Your task to perform on an android device: change the clock style Image 0: 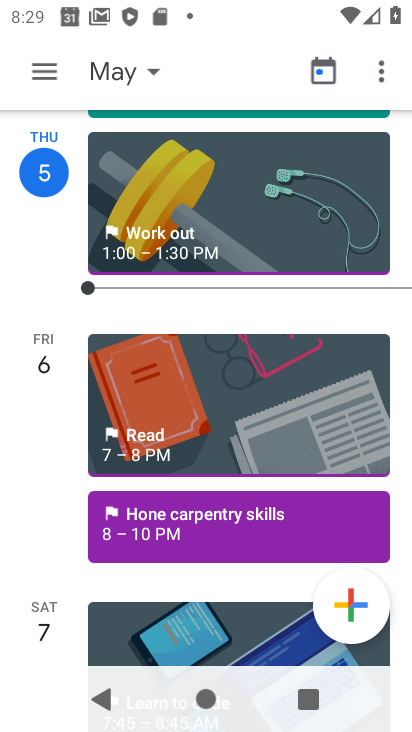
Step 0: press home button
Your task to perform on an android device: change the clock style Image 1: 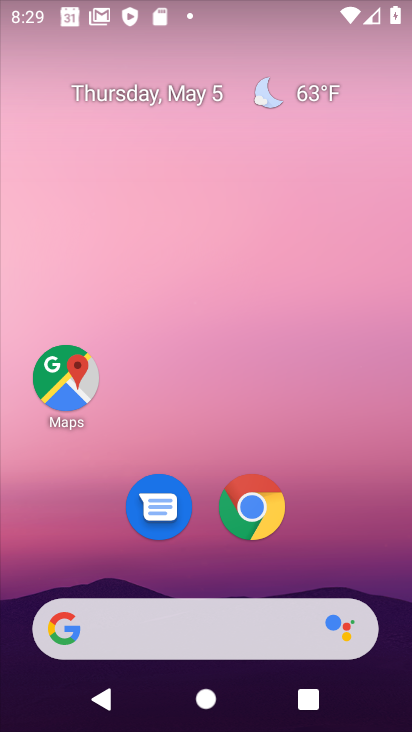
Step 1: drag from (261, 448) to (269, 21)
Your task to perform on an android device: change the clock style Image 2: 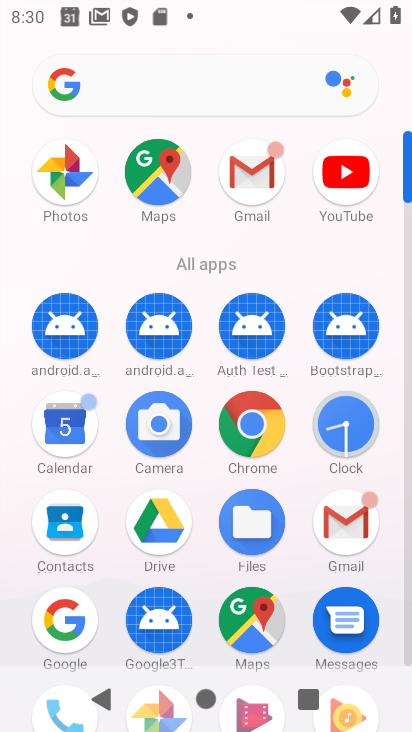
Step 2: click (350, 429)
Your task to perform on an android device: change the clock style Image 3: 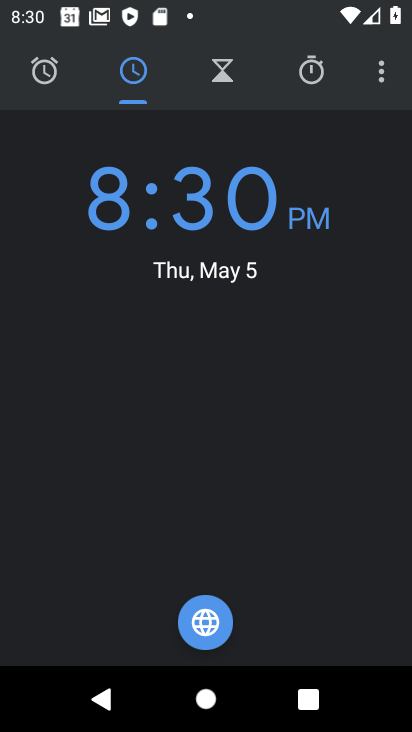
Step 3: click (375, 80)
Your task to perform on an android device: change the clock style Image 4: 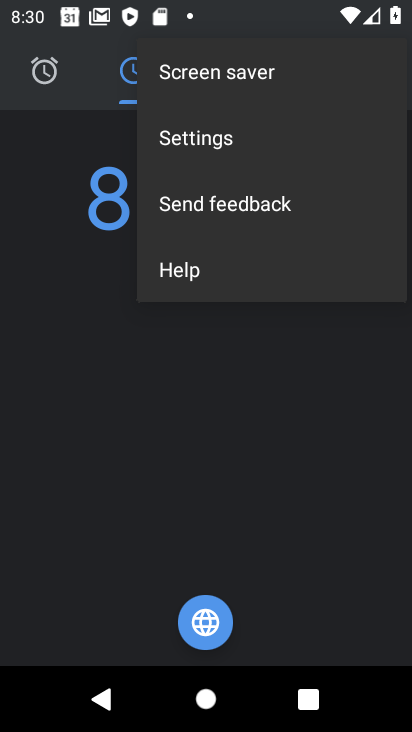
Step 4: click (208, 144)
Your task to perform on an android device: change the clock style Image 5: 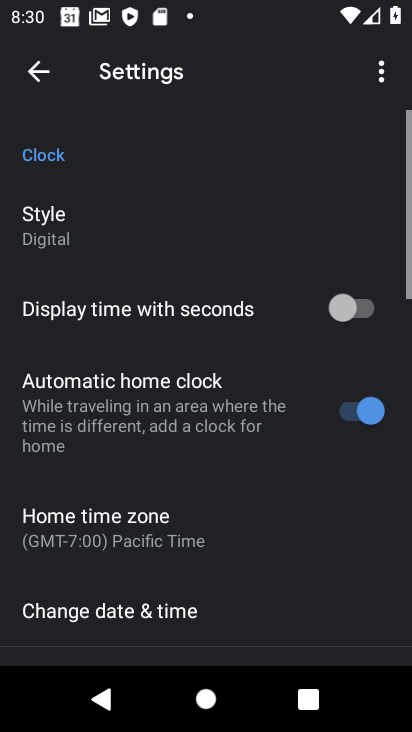
Step 5: click (87, 232)
Your task to perform on an android device: change the clock style Image 6: 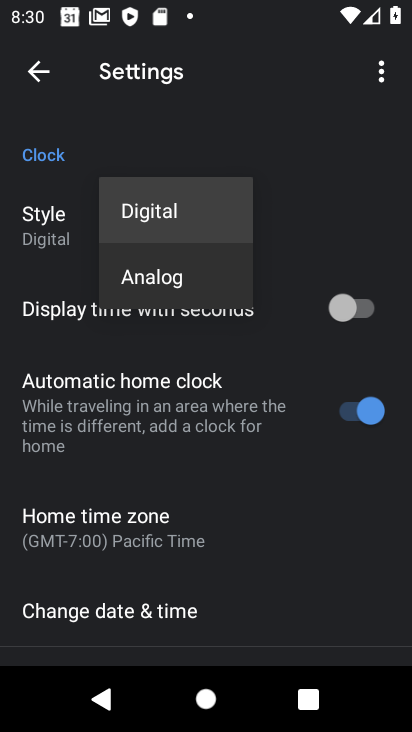
Step 6: click (195, 273)
Your task to perform on an android device: change the clock style Image 7: 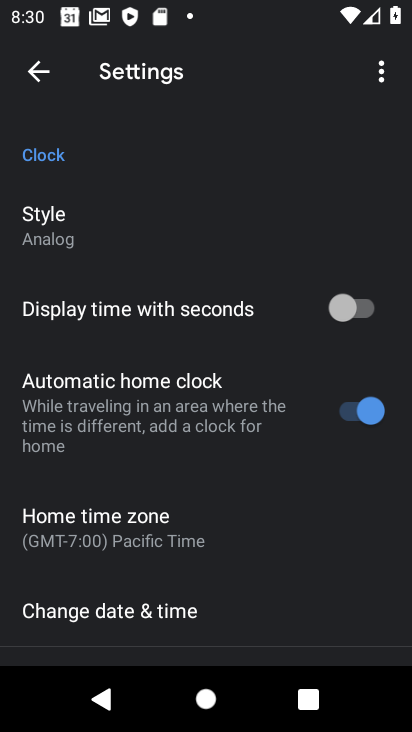
Step 7: task complete